Your task to perform on an android device: manage bookmarks in the chrome app Image 0: 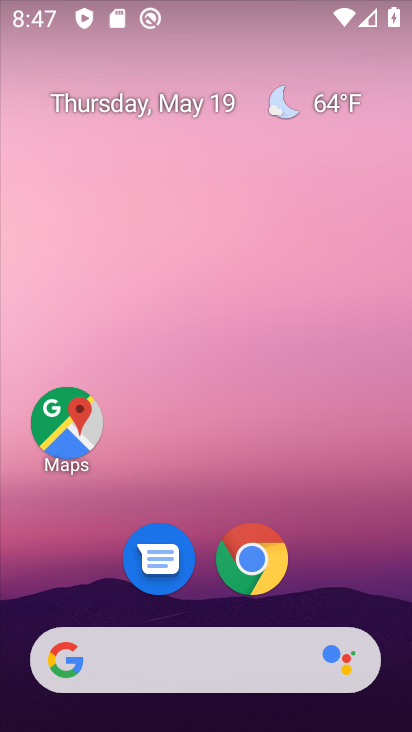
Step 0: click (248, 545)
Your task to perform on an android device: manage bookmarks in the chrome app Image 1: 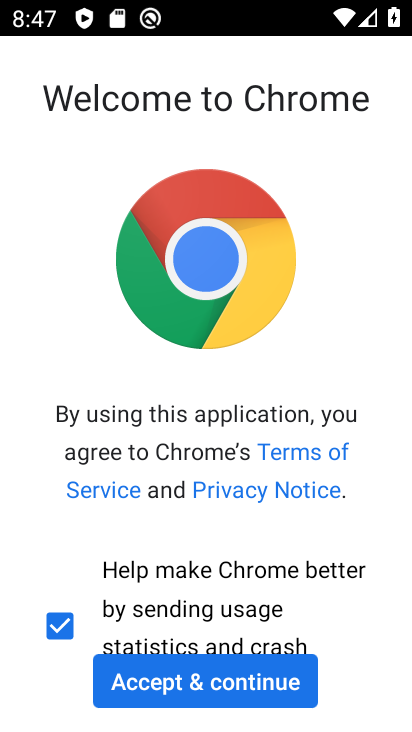
Step 1: click (285, 680)
Your task to perform on an android device: manage bookmarks in the chrome app Image 2: 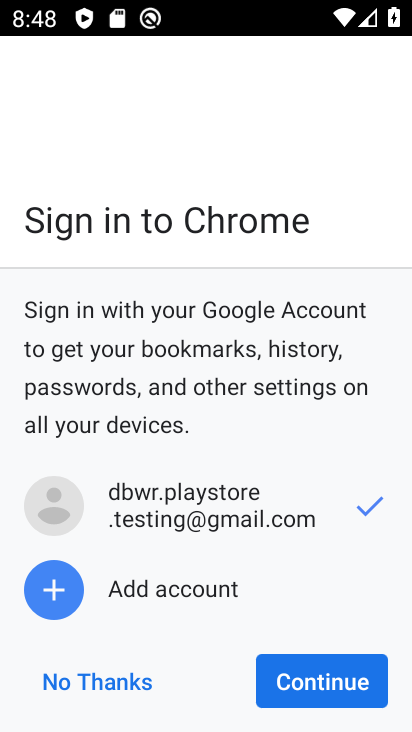
Step 2: click (343, 682)
Your task to perform on an android device: manage bookmarks in the chrome app Image 3: 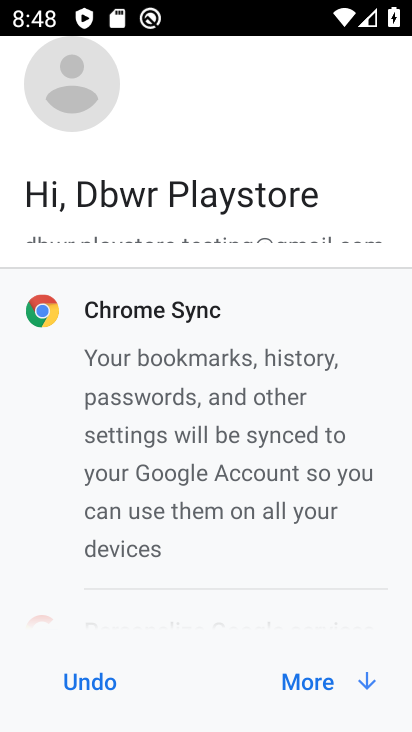
Step 3: click (330, 675)
Your task to perform on an android device: manage bookmarks in the chrome app Image 4: 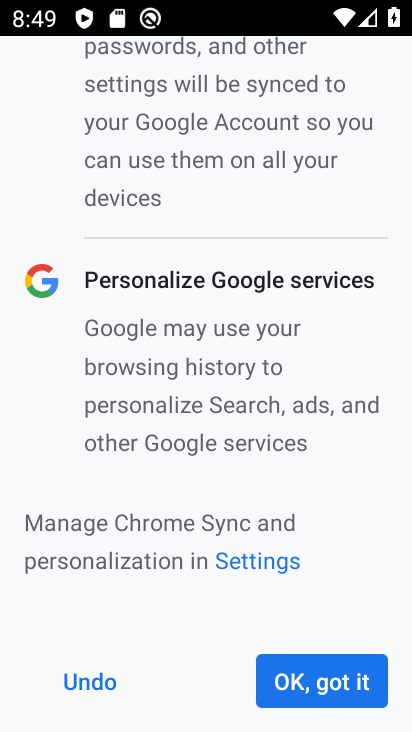
Step 4: click (309, 690)
Your task to perform on an android device: manage bookmarks in the chrome app Image 5: 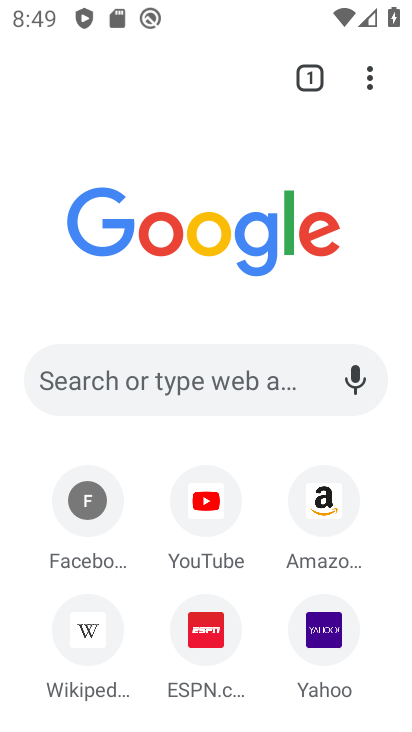
Step 5: click (371, 82)
Your task to perform on an android device: manage bookmarks in the chrome app Image 6: 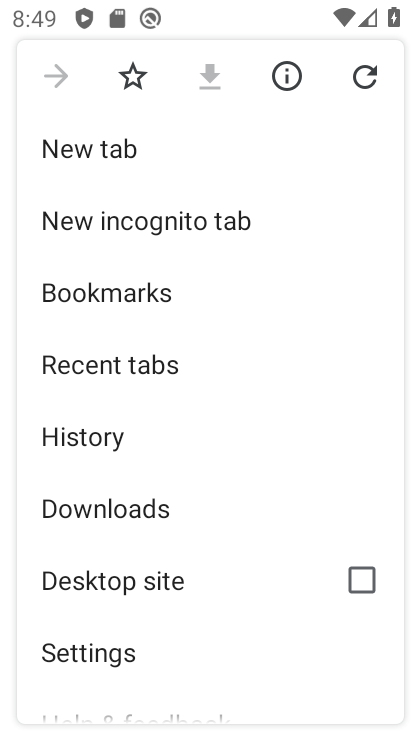
Step 6: click (126, 295)
Your task to perform on an android device: manage bookmarks in the chrome app Image 7: 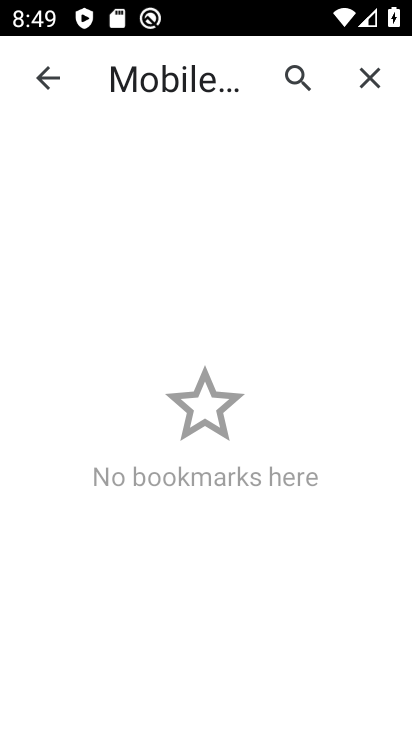
Step 7: task complete